Your task to perform on an android device: View the shopping cart on target. Image 0: 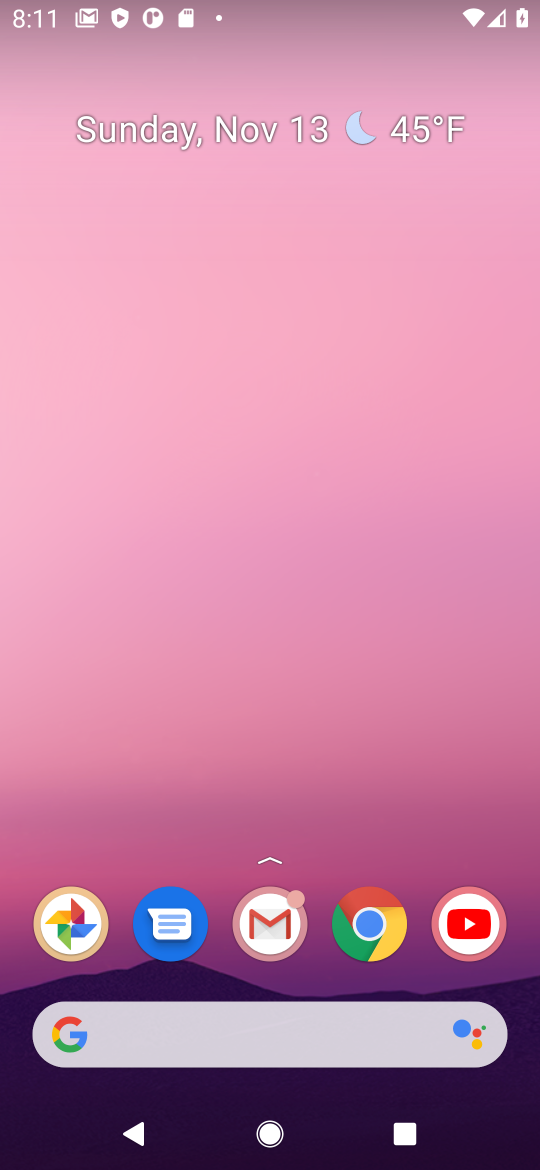
Step 0: click (363, 914)
Your task to perform on an android device: View the shopping cart on target. Image 1: 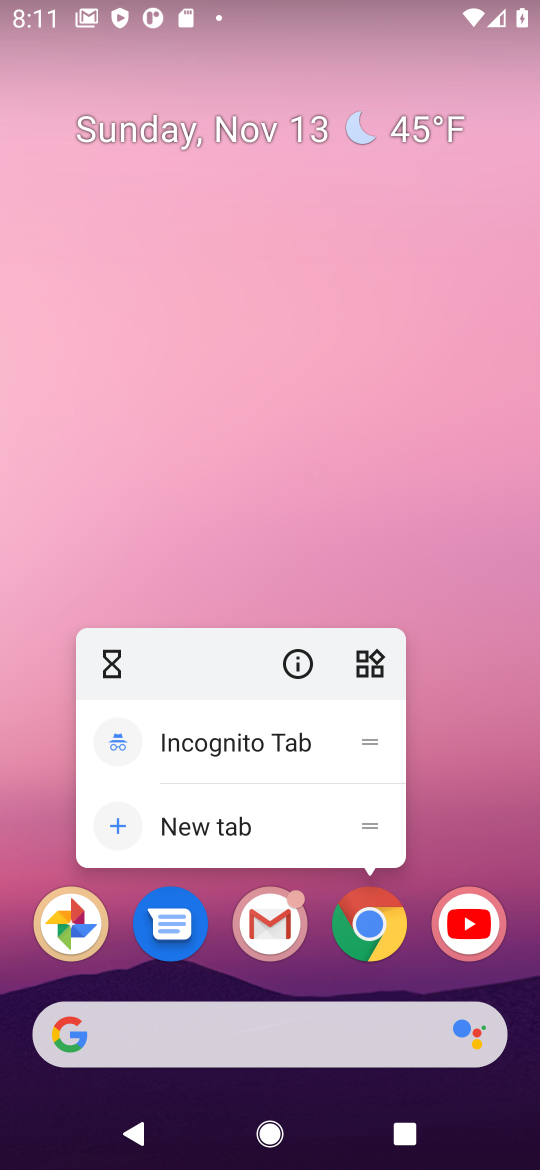
Step 1: click (363, 915)
Your task to perform on an android device: View the shopping cart on target. Image 2: 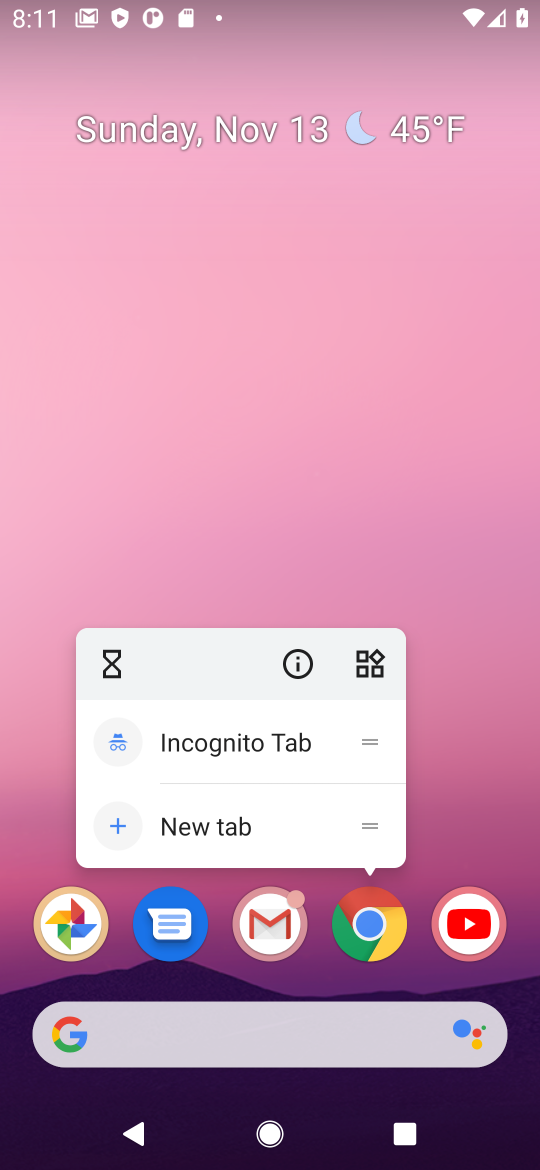
Step 2: click (363, 912)
Your task to perform on an android device: View the shopping cart on target. Image 3: 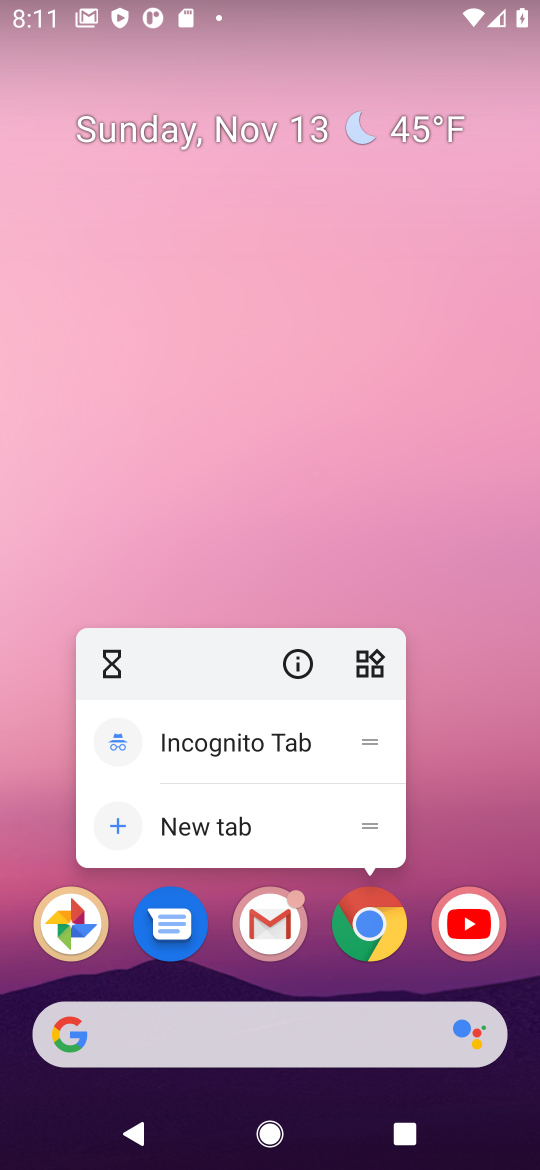
Step 3: click (371, 931)
Your task to perform on an android device: View the shopping cart on target. Image 4: 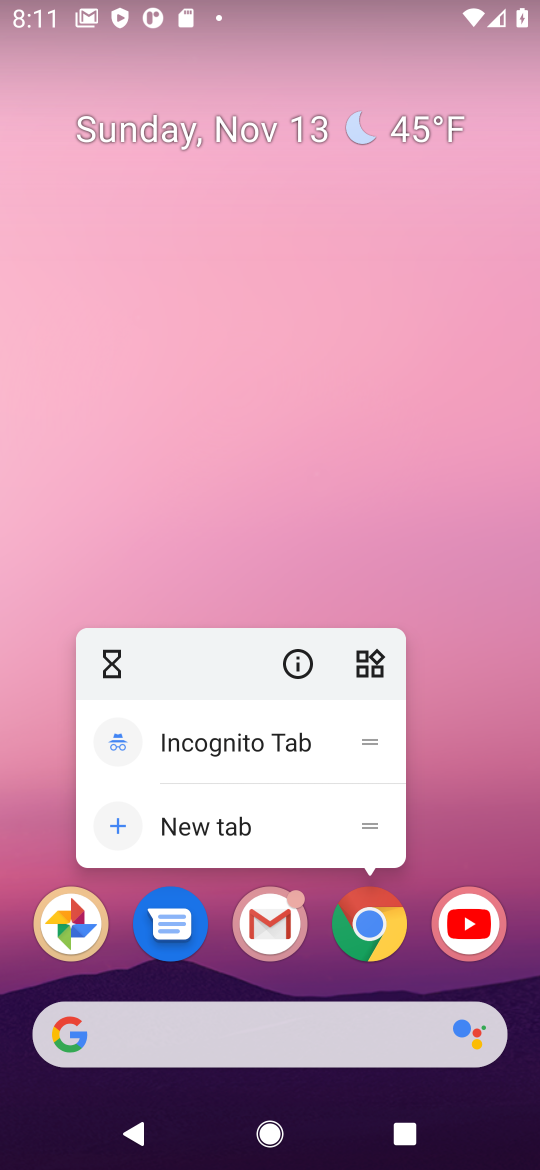
Step 4: click (371, 935)
Your task to perform on an android device: View the shopping cart on target. Image 5: 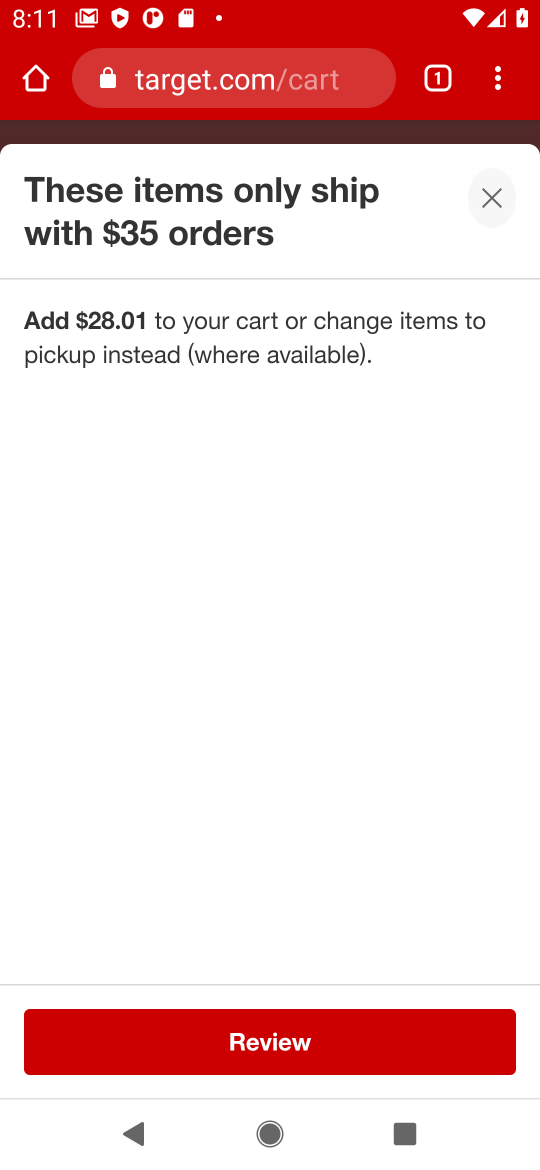
Step 5: click (487, 183)
Your task to perform on an android device: View the shopping cart on target. Image 6: 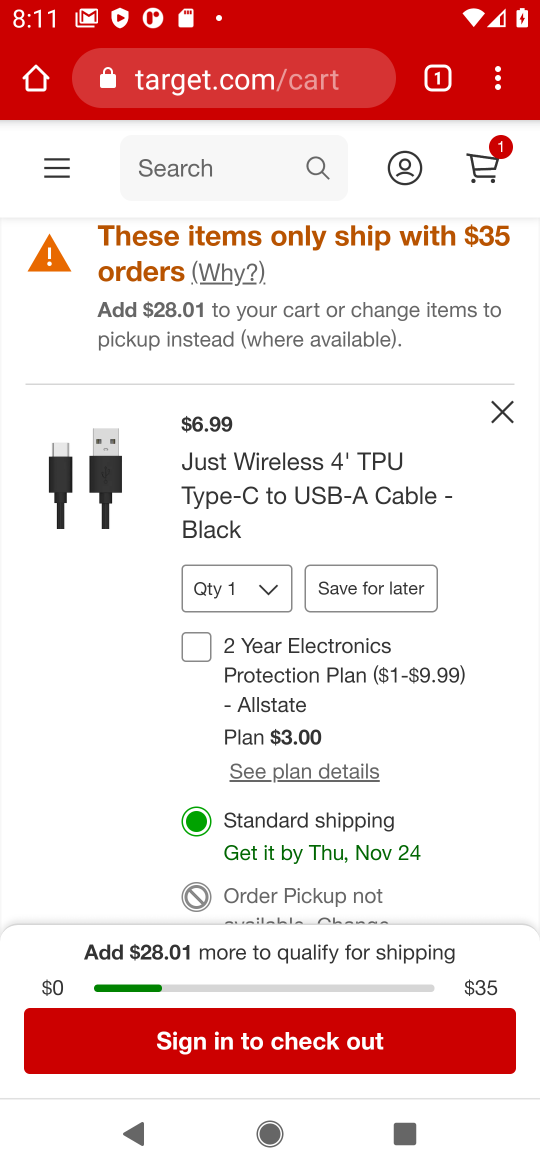
Step 6: click (255, 457)
Your task to perform on an android device: View the shopping cart on target. Image 7: 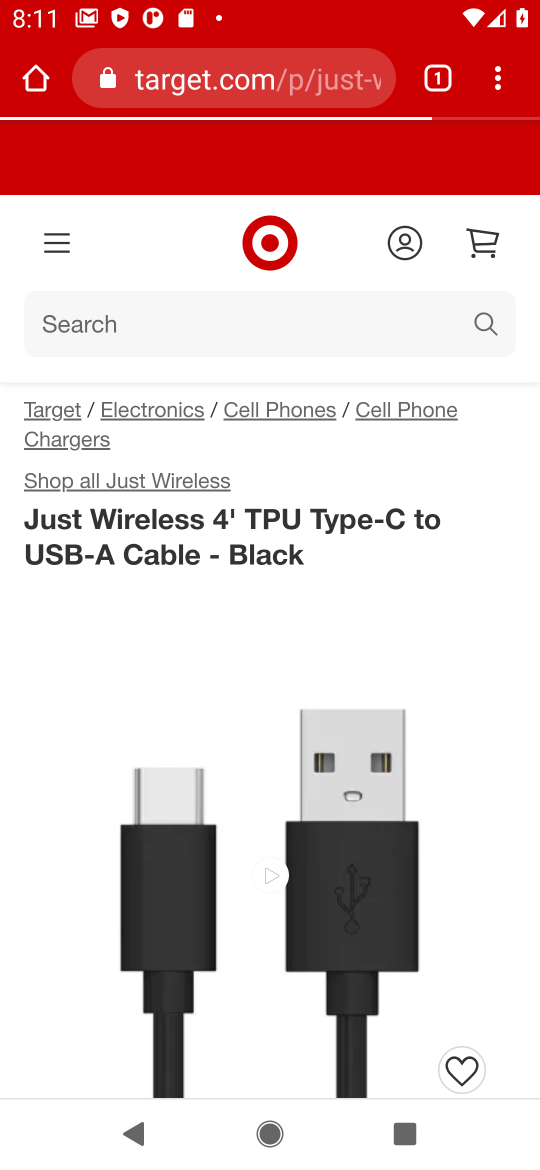
Step 7: task complete